Your task to perform on an android device: Open accessibility settings Image 0: 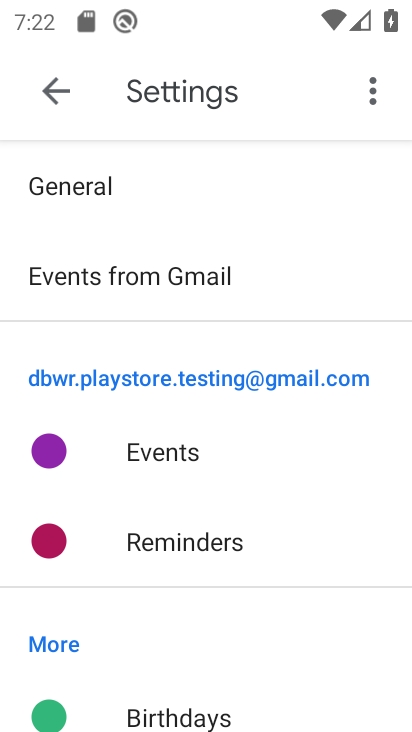
Step 0: press home button
Your task to perform on an android device: Open accessibility settings Image 1: 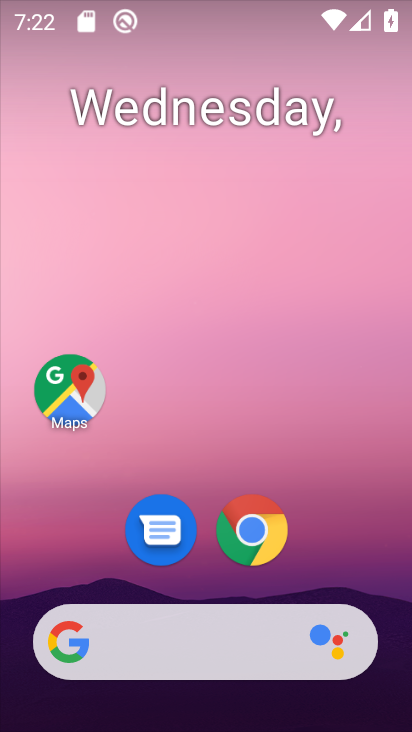
Step 1: drag from (394, 620) to (323, 100)
Your task to perform on an android device: Open accessibility settings Image 2: 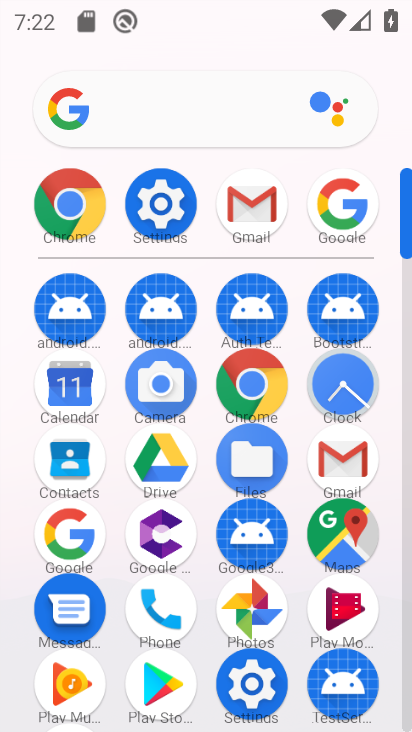
Step 2: click (162, 207)
Your task to perform on an android device: Open accessibility settings Image 3: 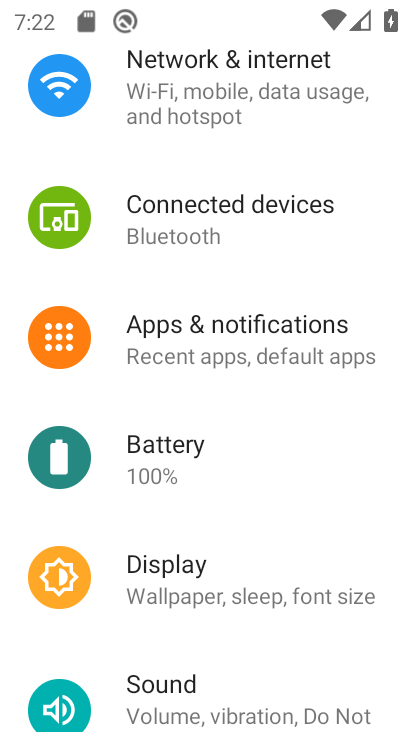
Step 3: drag from (231, 648) to (256, 76)
Your task to perform on an android device: Open accessibility settings Image 4: 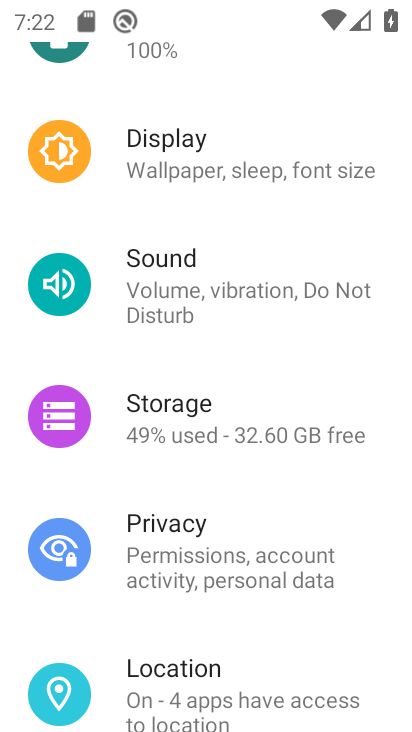
Step 4: drag from (205, 619) to (251, 149)
Your task to perform on an android device: Open accessibility settings Image 5: 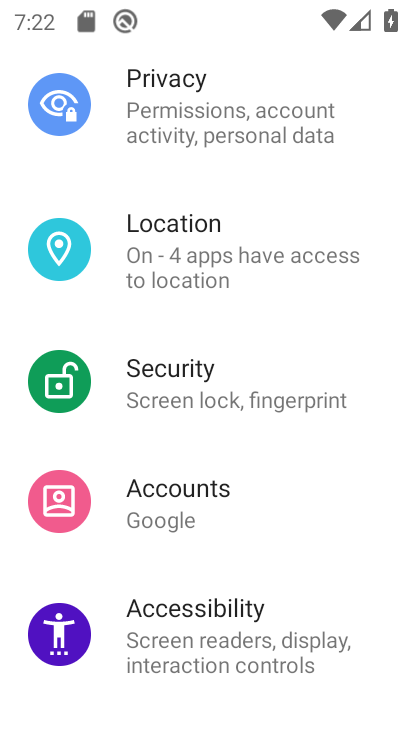
Step 5: click (229, 616)
Your task to perform on an android device: Open accessibility settings Image 6: 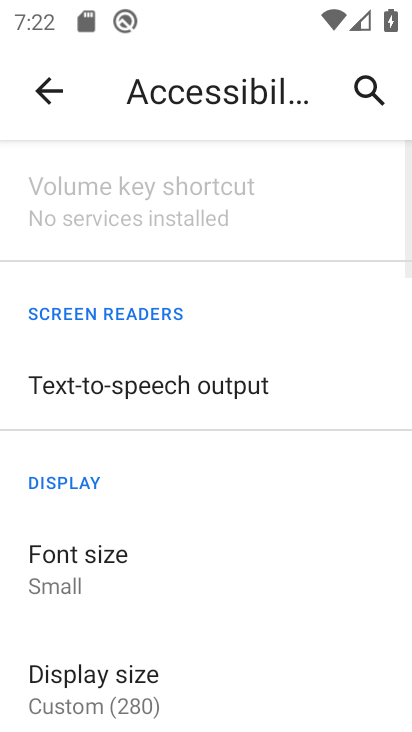
Step 6: task complete